Your task to perform on an android device: open wifi settings Image 0: 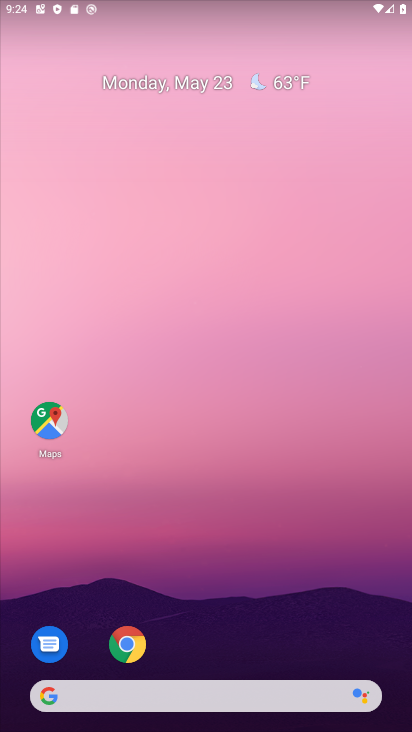
Step 0: press home button
Your task to perform on an android device: open wifi settings Image 1: 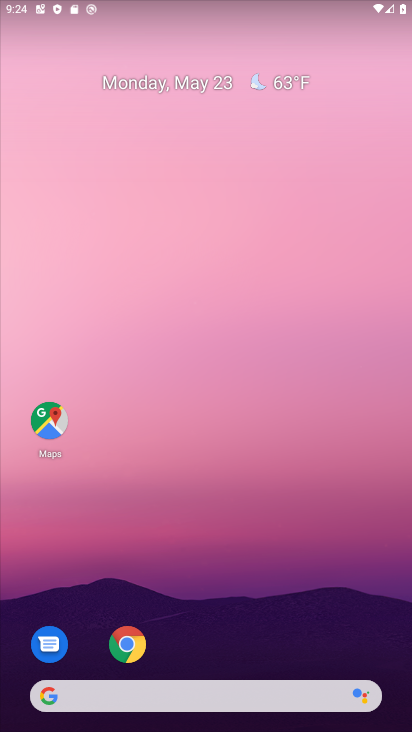
Step 1: drag from (206, 662) to (258, 98)
Your task to perform on an android device: open wifi settings Image 2: 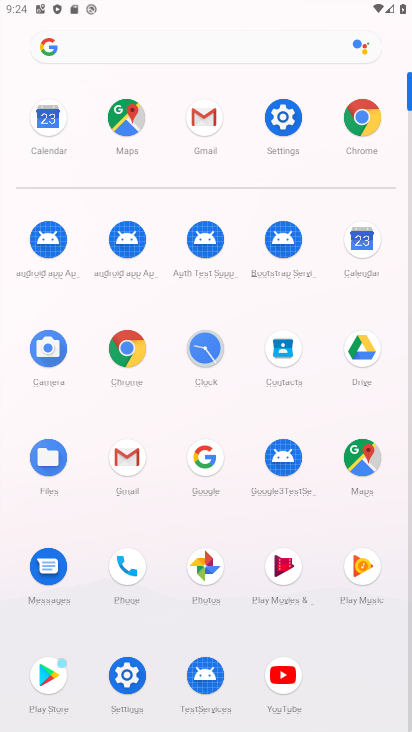
Step 2: click (275, 110)
Your task to perform on an android device: open wifi settings Image 3: 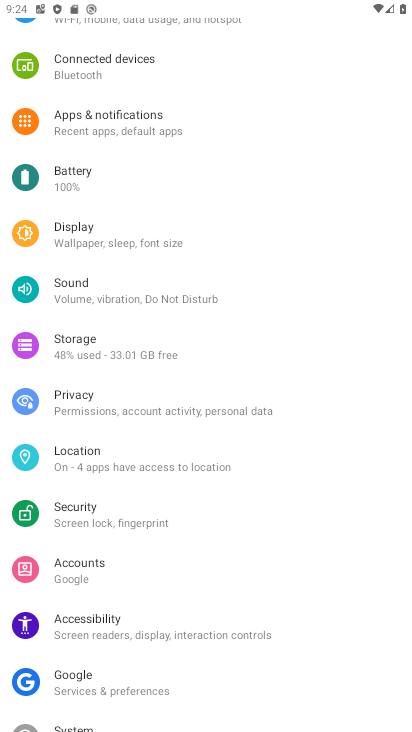
Step 3: drag from (136, 78) to (106, 485)
Your task to perform on an android device: open wifi settings Image 4: 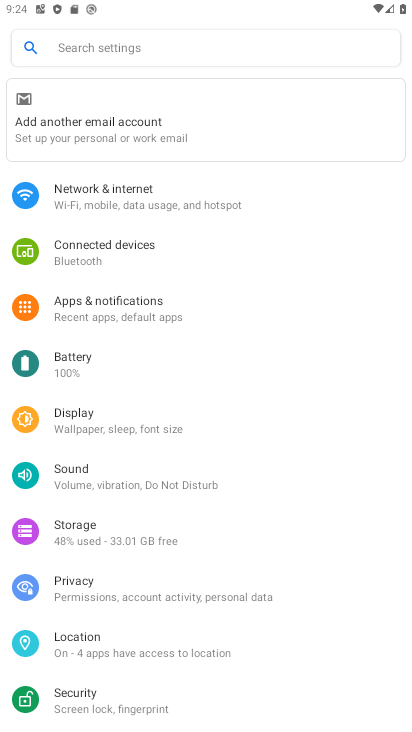
Step 4: click (141, 179)
Your task to perform on an android device: open wifi settings Image 5: 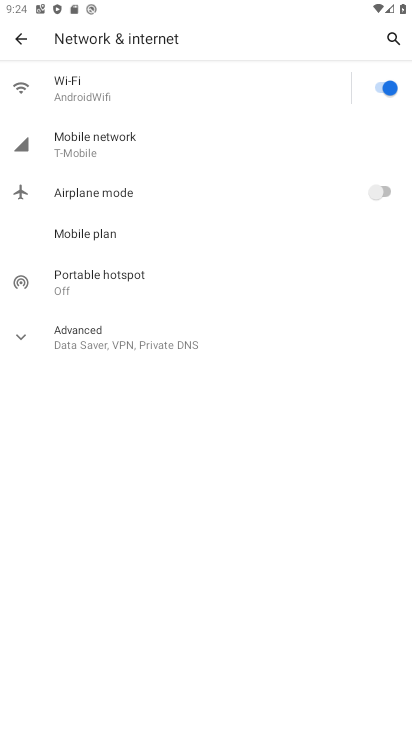
Step 5: click (131, 79)
Your task to perform on an android device: open wifi settings Image 6: 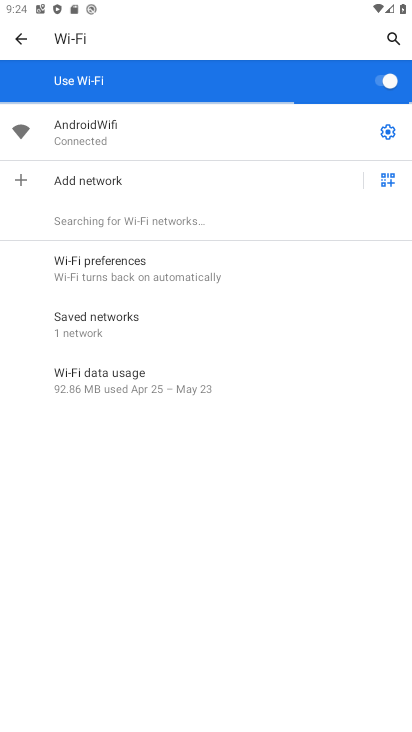
Step 6: task complete